Your task to perform on an android device: turn on the 12-hour format for clock Image 0: 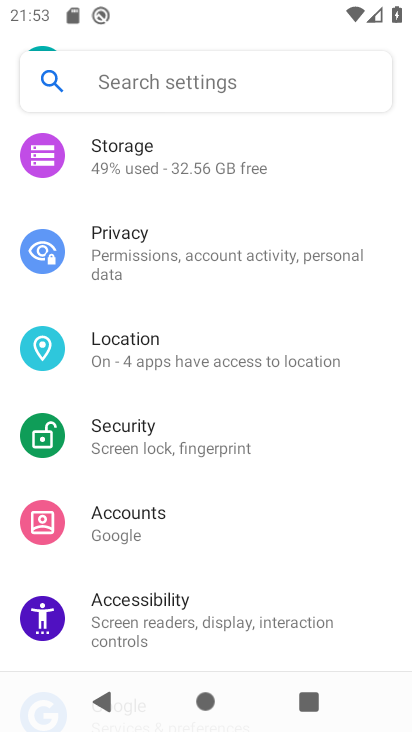
Step 0: press home button
Your task to perform on an android device: turn on the 12-hour format for clock Image 1: 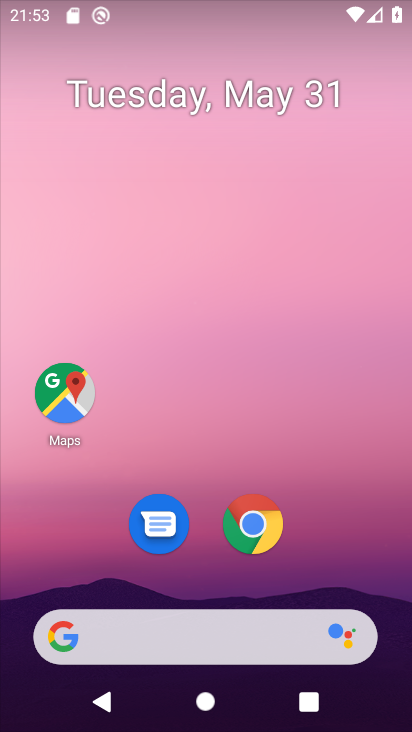
Step 1: drag from (311, 460) to (324, 20)
Your task to perform on an android device: turn on the 12-hour format for clock Image 2: 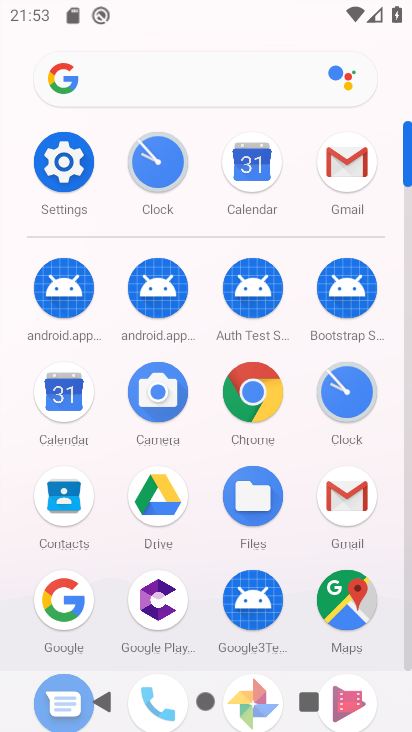
Step 2: click (355, 398)
Your task to perform on an android device: turn on the 12-hour format for clock Image 3: 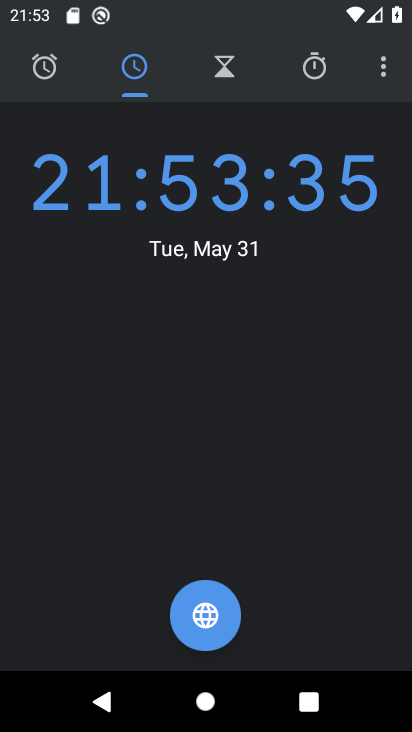
Step 3: click (379, 73)
Your task to perform on an android device: turn on the 12-hour format for clock Image 4: 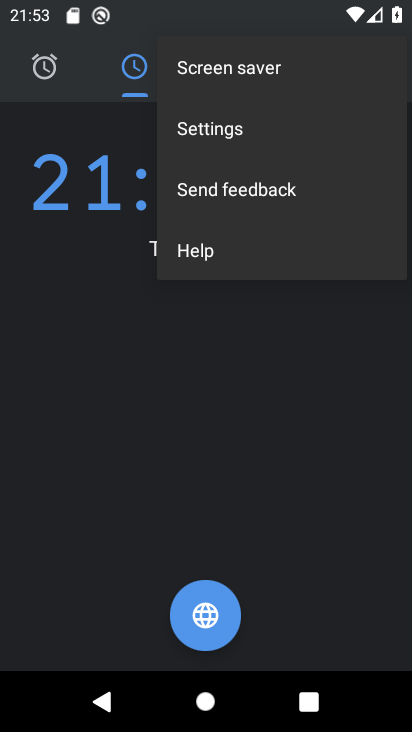
Step 4: click (295, 121)
Your task to perform on an android device: turn on the 12-hour format for clock Image 5: 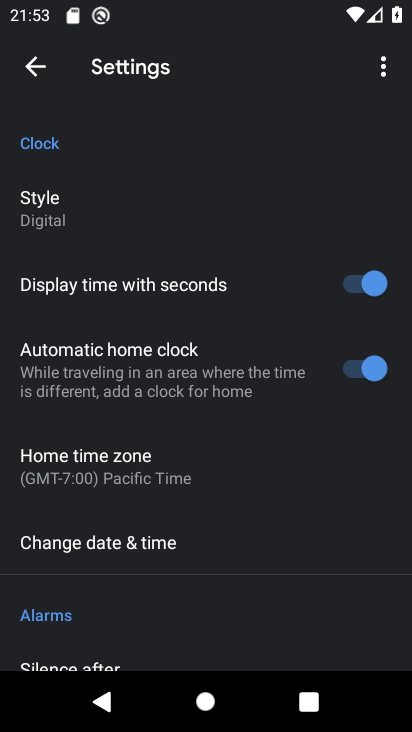
Step 5: click (233, 547)
Your task to perform on an android device: turn on the 12-hour format for clock Image 6: 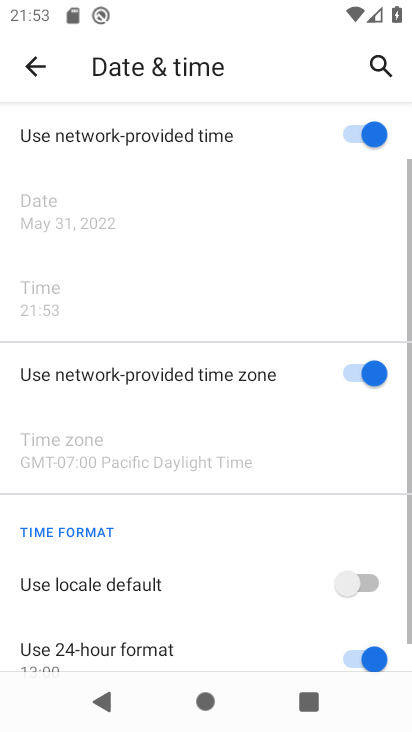
Step 6: drag from (288, 450) to (324, 247)
Your task to perform on an android device: turn on the 12-hour format for clock Image 7: 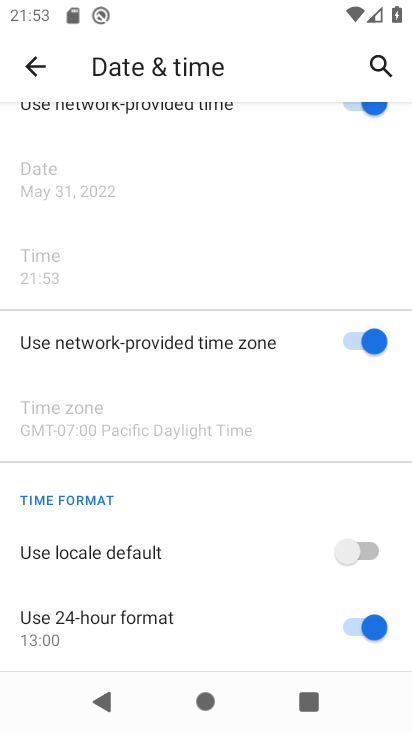
Step 7: click (355, 621)
Your task to perform on an android device: turn on the 12-hour format for clock Image 8: 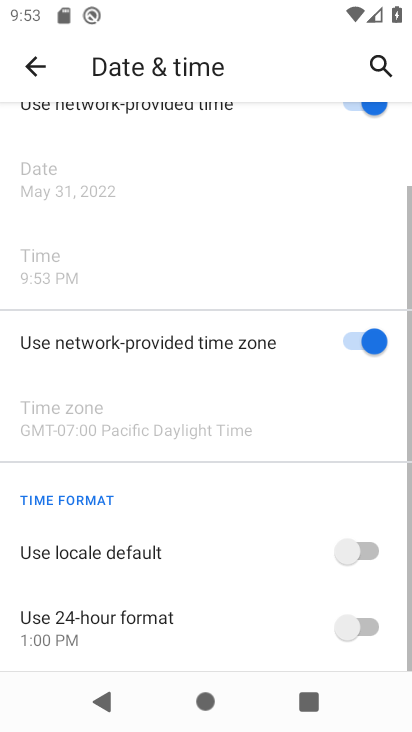
Step 8: click (368, 547)
Your task to perform on an android device: turn on the 12-hour format for clock Image 9: 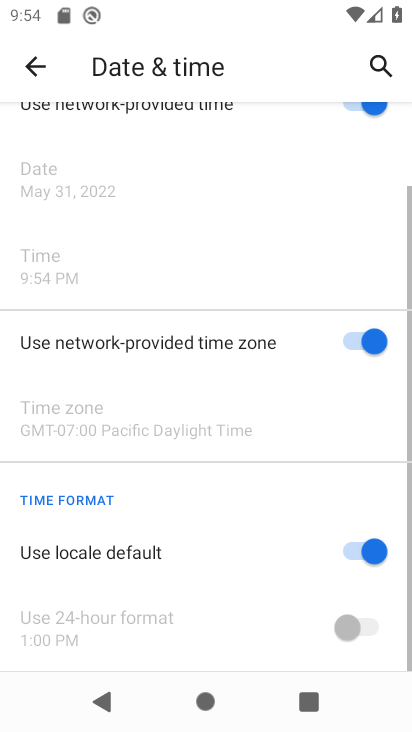
Step 9: task complete